Your task to perform on an android device: turn off sleep mode Image 0: 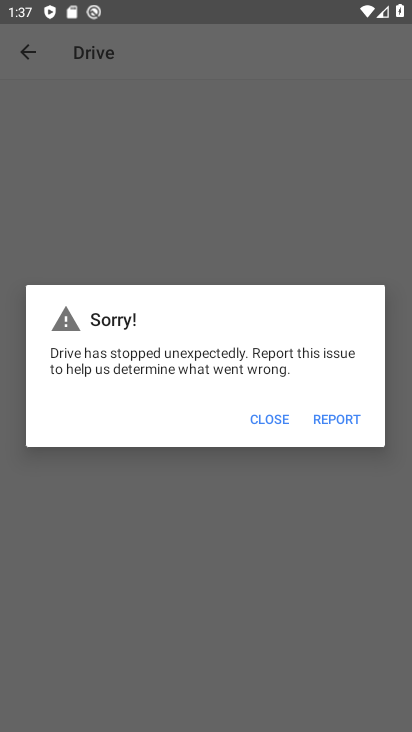
Step 0: press home button
Your task to perform on an android device: turn off sleep mode Image 1: 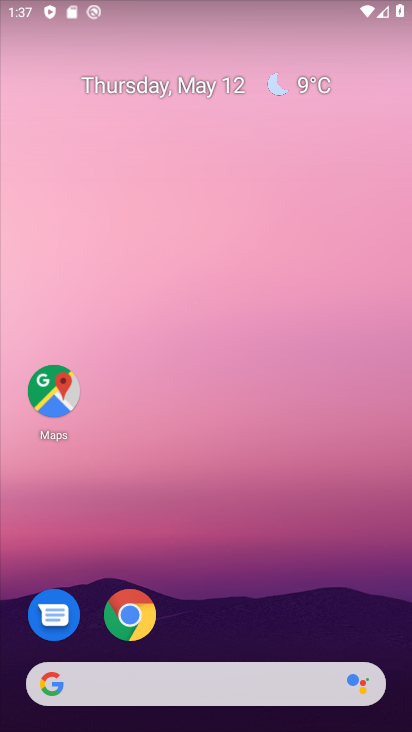
Step 1: drag from (223, 693) to (313, 86)
Your task to perform on an android device: turn off sleep mode Image 2: 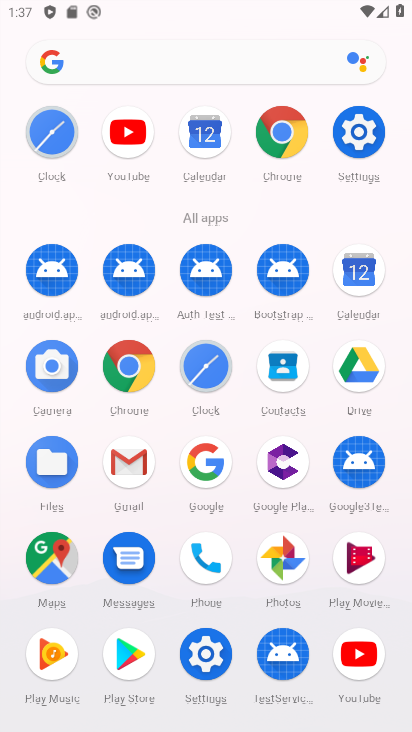
Step 2: click (199, 647)
Your task to perform on an android device: turn off sleep mode Image 3: 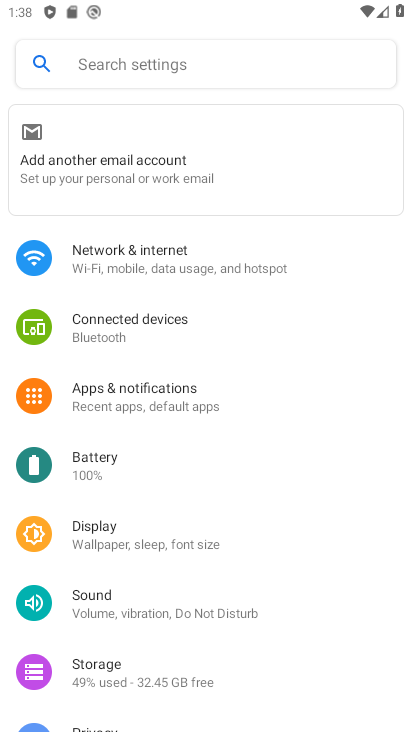
Step 3: click (110, 524)
Your task to perform on an android device: turn off sleep mode Image 4: 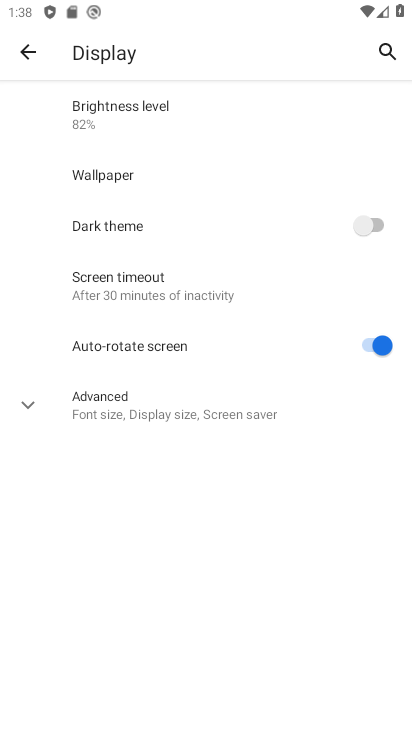
Step 4: click (117, 422)
Your task to perform on an android device: turn off sleep mode Image 5: 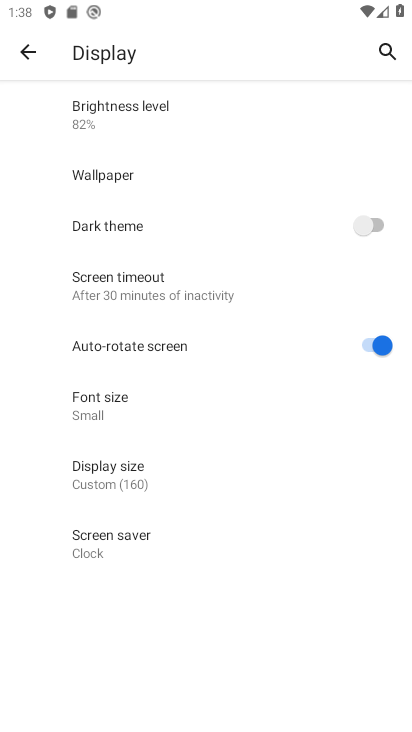
Step 5: task complete